Your task to perform on an android device: turn vacation reply on in the gmail app Image 0: 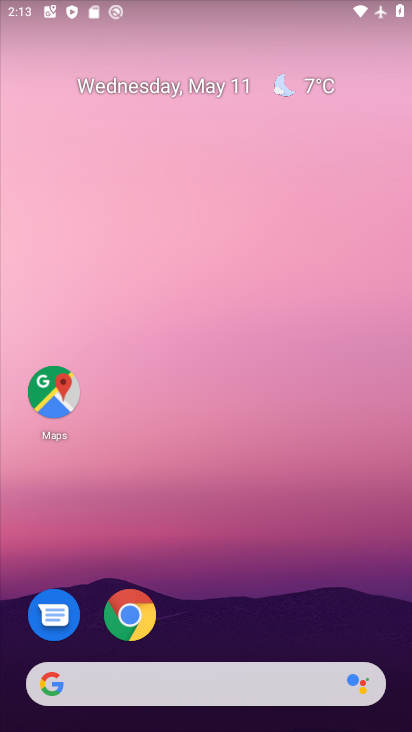
Step 0: drag from (231, 626) to (167, 95)
Your task to perform on an android device: turn vacation reply on in the gmail app Image 1: 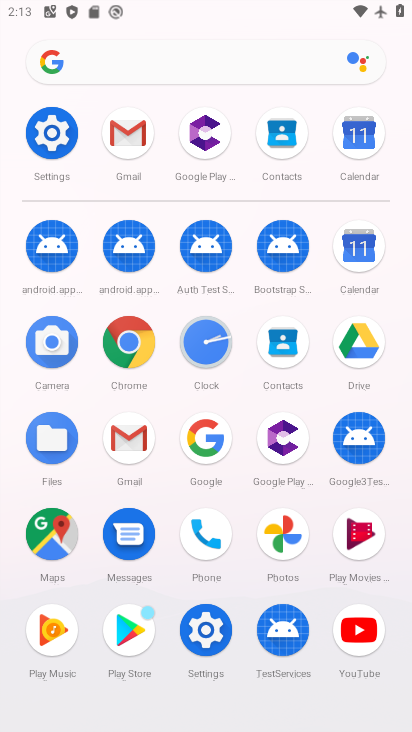
Step 1: click (136, 136)
Your task to perform on an android device: turn vacation reply on in the gmail app Image 2: 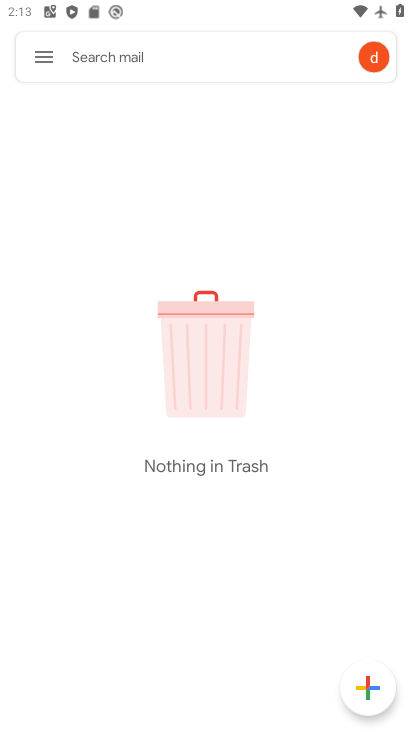
Step 2: click (42, 60)
Your task to perform on an android device: turn vacation reply on in the gmail app Image 3: 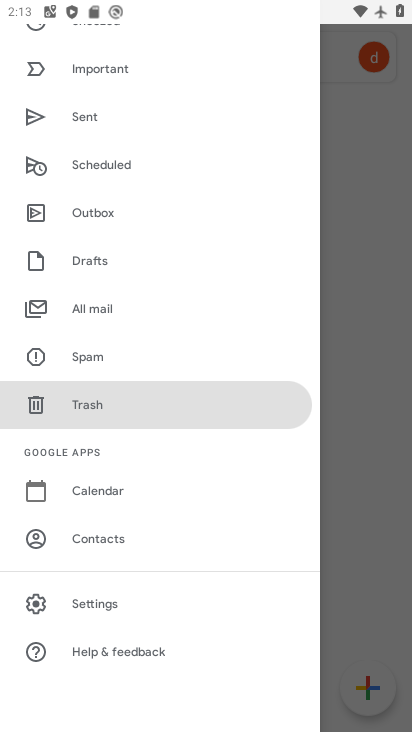
Step 3: click (166, 602)
Your task to perform on an android device: turn vacation reply on in the gmail app Image 4: 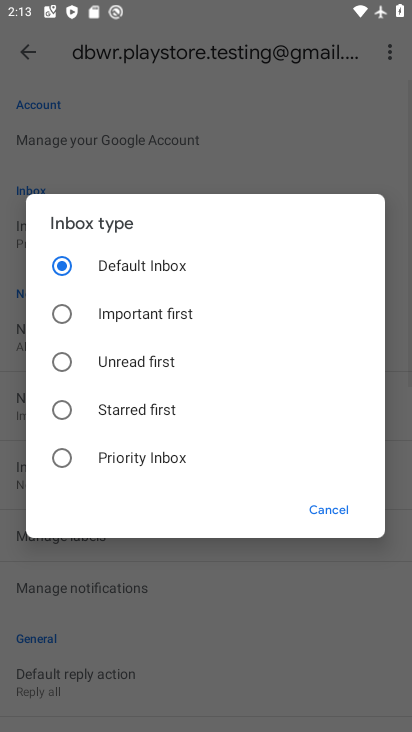
Step 4: click (326, 508)
Your task to perform on an android device: turn vacation reply on in the gmail app Image 5: 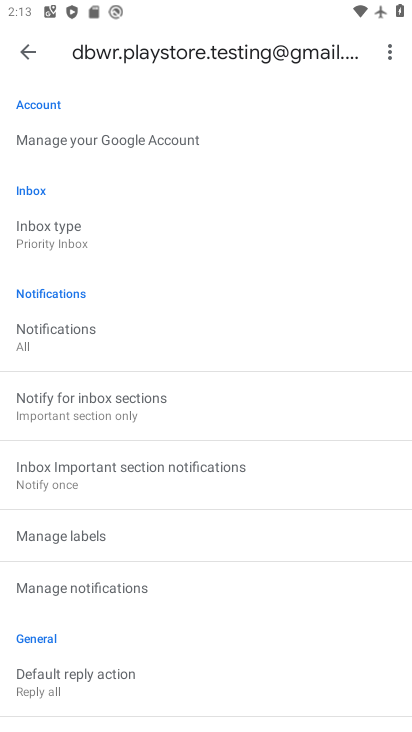
Step 5: drag from (223, 556) to (267, 109)
Your task to perform on an android device: turn vacation reply on in the gmail app Image 6: 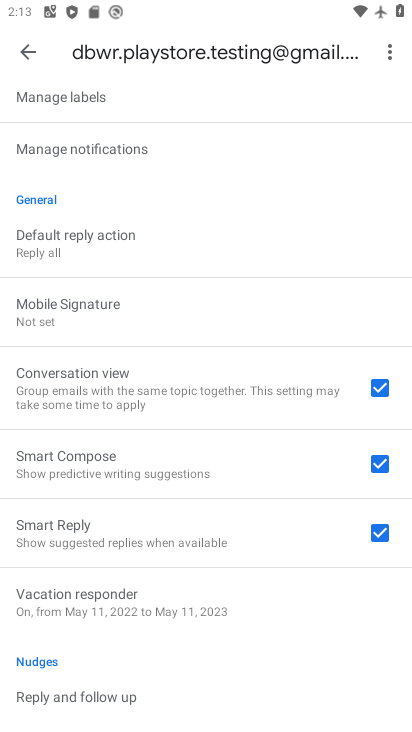
Step 6: click (200, 594)
Your task to perform on an android device: turn vacation reply on in the gmail app Image 7: 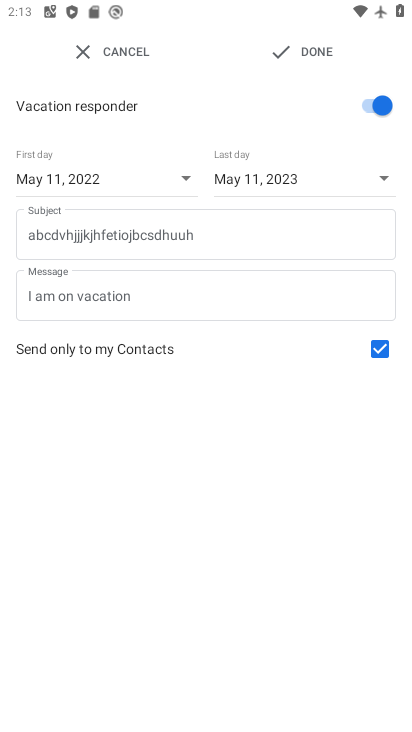
Step 7: task complete